Your task to perform on an android device: Open Youtube and go to the subscriptions tab Image 0: 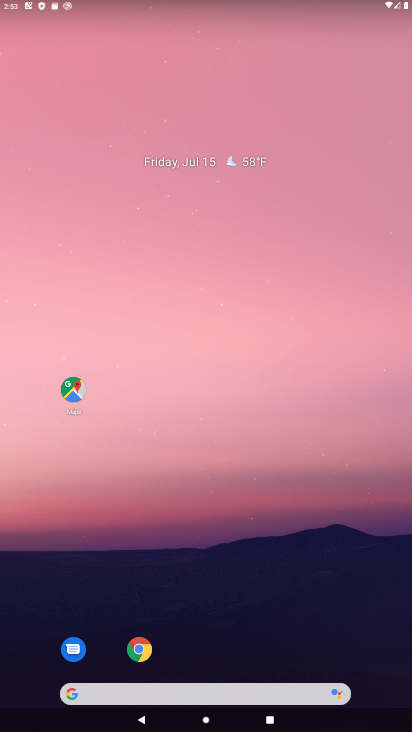
Step 0: drag from (241, 657) to (206, 161)
Your task to perform on an android device: Open Youtube and go to the subscriptions tab Image 1: 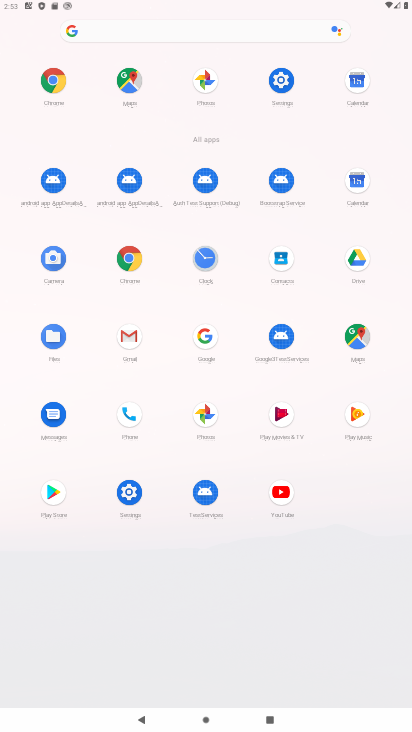
Step 1: click (285, 491)
Your task to perform on an android device: Open Youtube and go to the subscriptions tab Image 2: 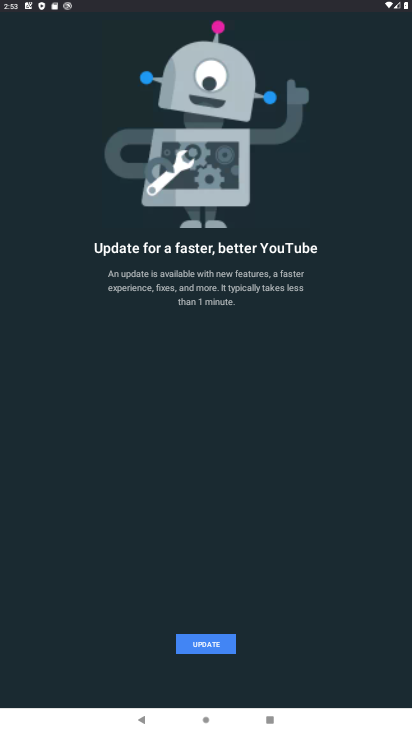
Step 2: task complete